Your task to perform on an android device: Go to ESPN.com Image 0: 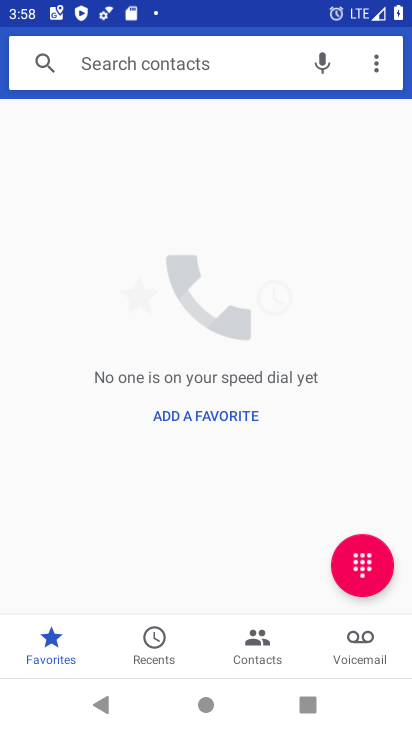
Step 0: press home button
Your task to perform on an android device: Go to ESPN.com Image 1: 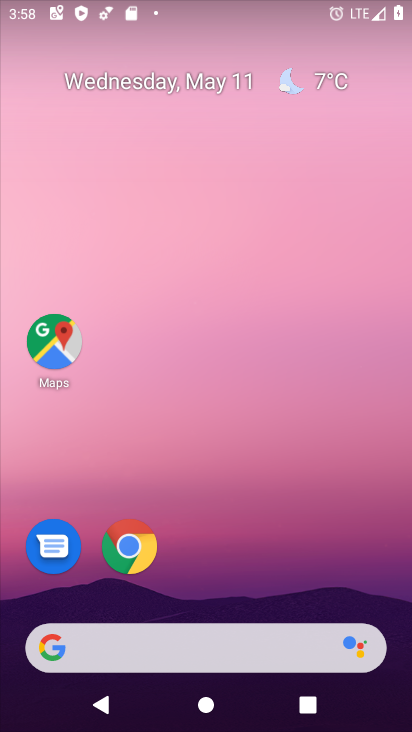
Step 1: drag from (324, 661) to (305, 127)
Your task to perform on an android device: Go to ESPN.com Image 2: 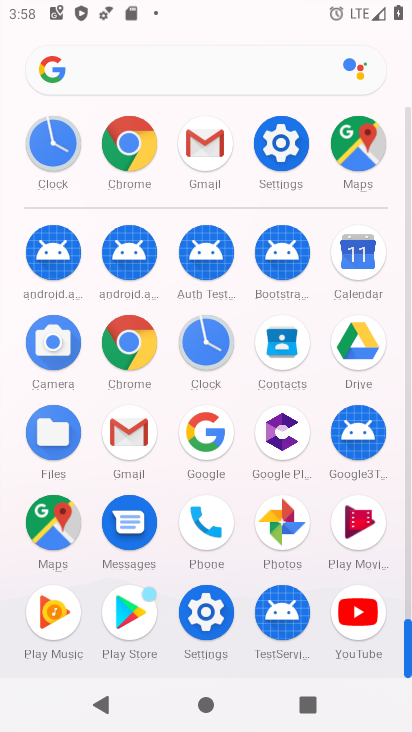
Step 2: click (116, 357)
Your task to perform on an android device: Go to ESPN.com Image 3: 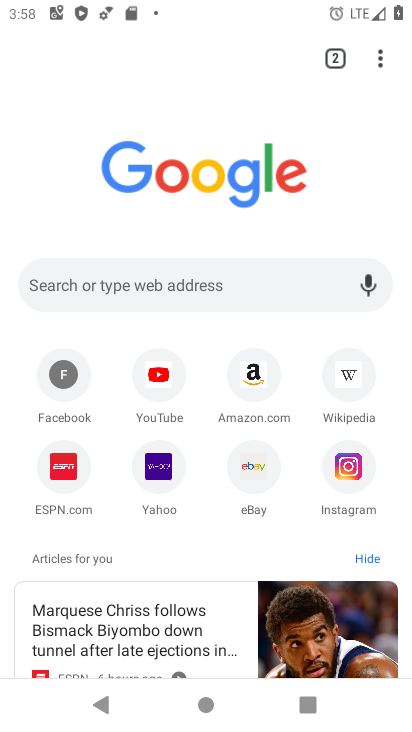
Step 3: click (183, 268)
Your task to perform on an android device: Go to ESPN.com Image 4: 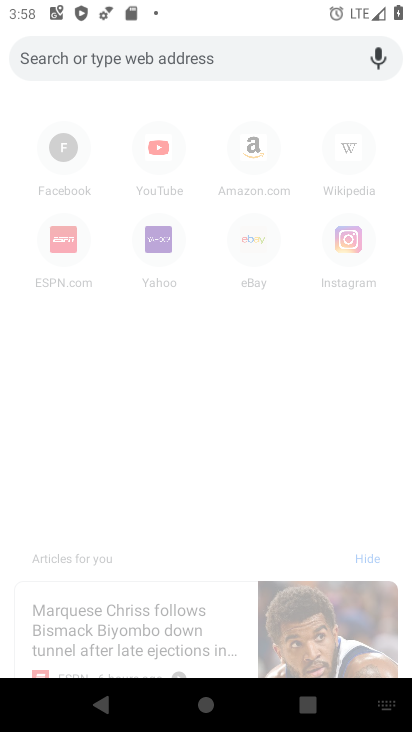
Step 4: type "espn.com"
Your task to perform on an android device: Go to ESPN.com Image 5: 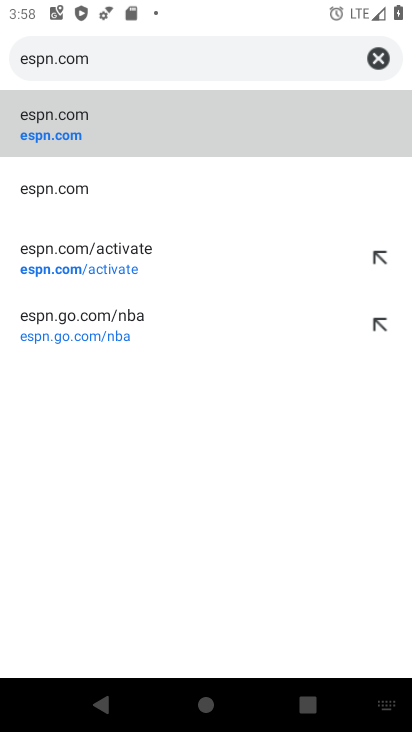
Step 5: click (80, 117)
Your task to perform on an android device: Go to ESPN.com Image 6: 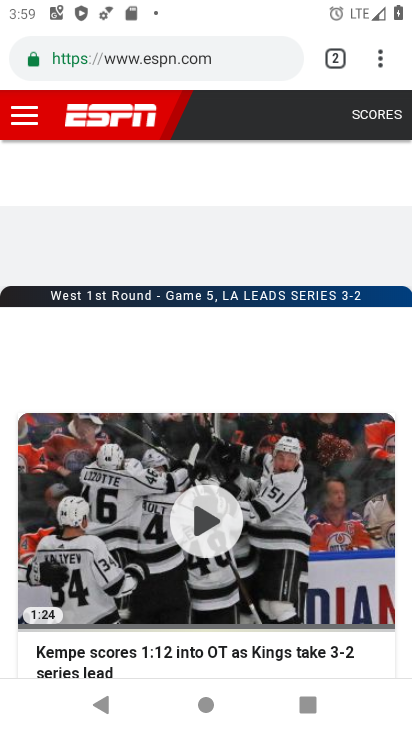
Step 6: task complete